Your task to perform on an android device: turn off notifications in google photos Image 0: 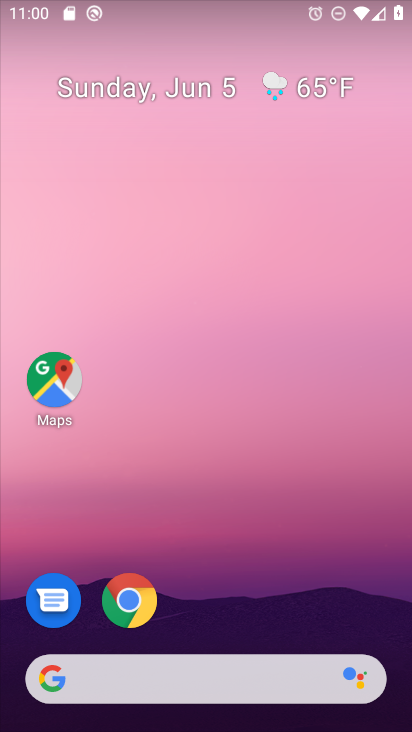
Step 0: drag from (329, 613) to (231, 50)
Your task to perform on an android device: turn off notifications in google photos Image 1: 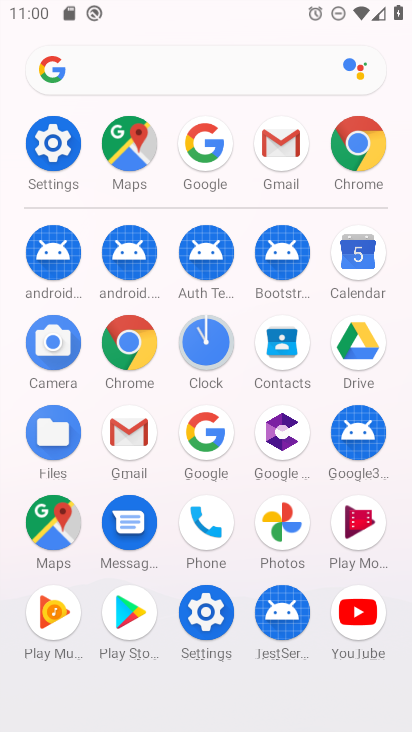
Step 1: click (289, 516)
Your task to perform on an android device: turn off notifications in google photos Image 2: 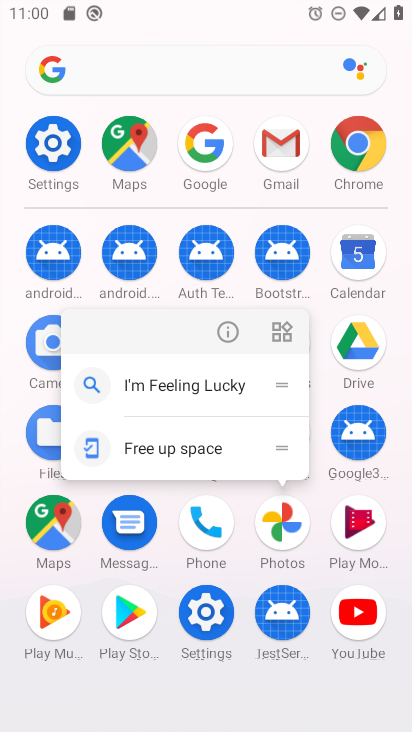
Step 2: click (288, 516)
Your task to perform on an android device: turn off notifications in google photos Image 3: 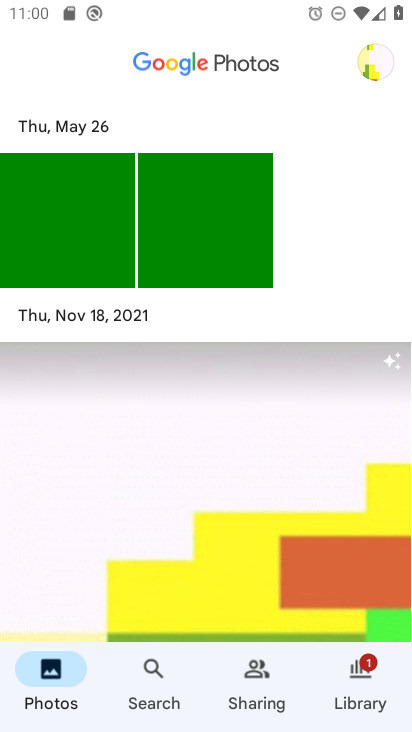
Step 3: click (379, 56)
Your task to perform on an android device: turn off notifications in google photos Image 4: 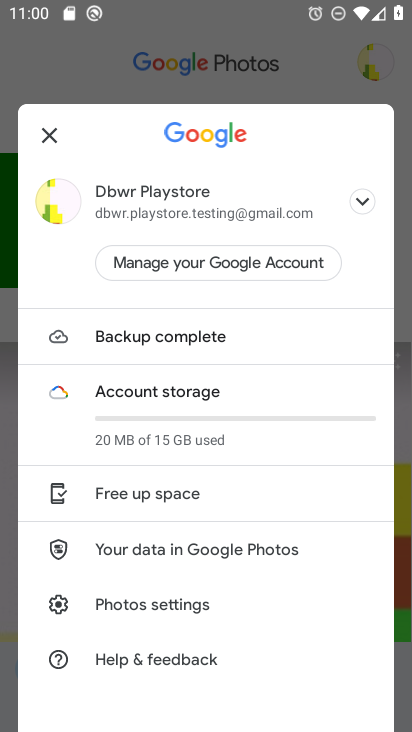
Step 4: click (181, 599)
Your task to perform on an android device: turn off notifications in google photos Image 5: 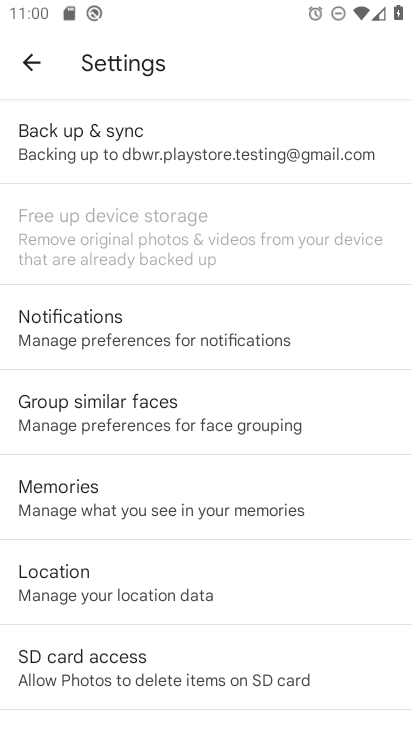
Step 5: click (203, 338)
Your task to perform on an android device: turn off notifications in google photos Image 6: 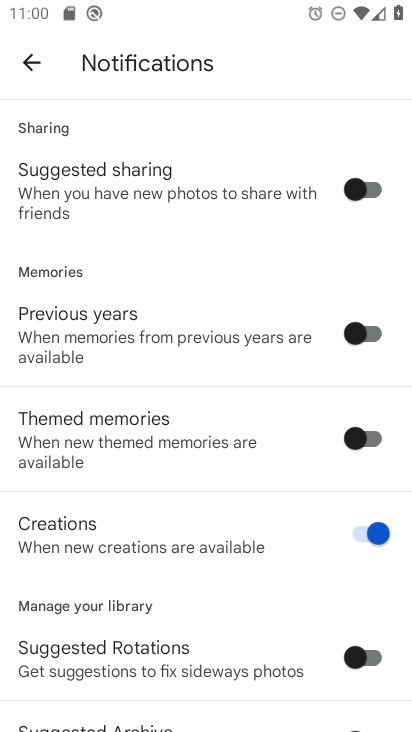
Step 6: task complete